Your task to perform on an android device: Search for pizza restaurants on Maps Image 0: 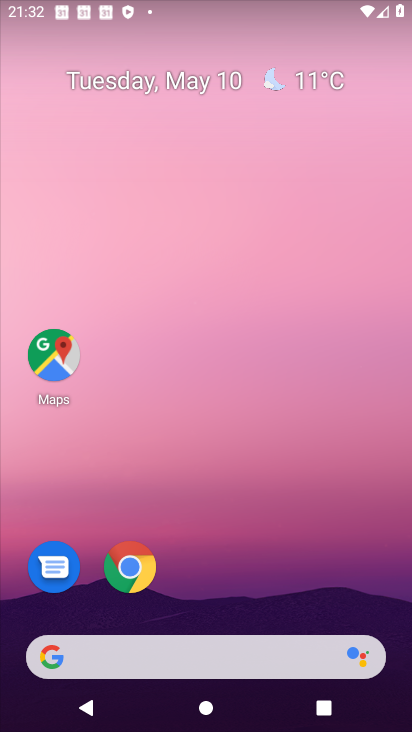
Step 0: click (48, 351)
Your task to perform on an android device: Search for pizza restaurants on Maps Image 1: 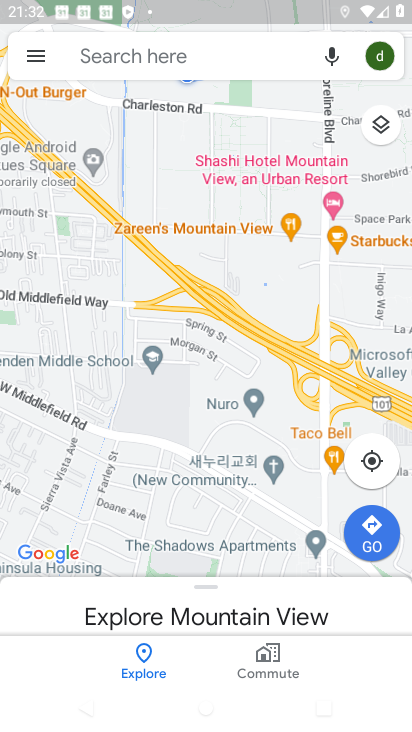
Step 1: click (134, 62)
Your task to perform on an android device: Search for pizza restaurants on Maps Image 2: 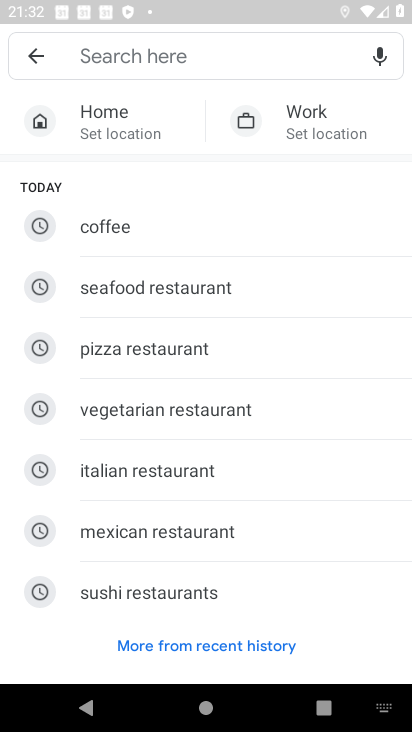
Step 2: click (176, 353)
Your task to perform on an android device: Search for pizza restaurants on Maps Image 3: 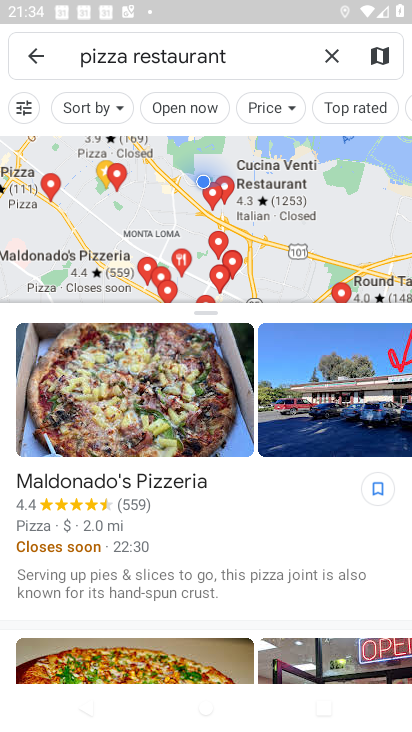
Step 3: task complete